Your task to perform on an android device: turn off notifications settings in the gmail app Image 0: 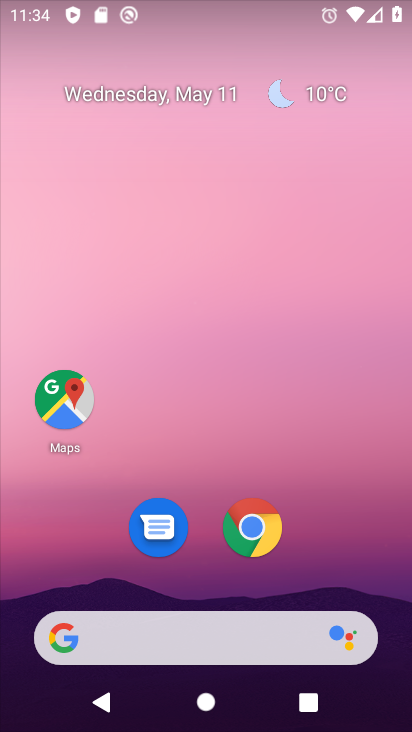
Step 0: drag from (206, 573) to (238, 124)
Your task to perform on an android device: turn off notifications settings in the gmail app Image 1: 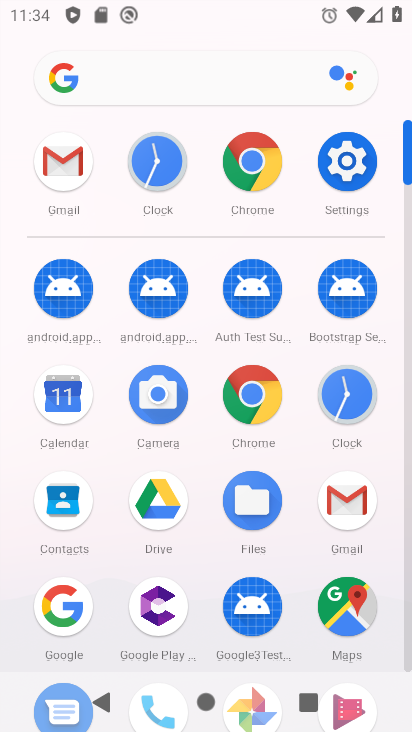
Step 1: click (357, 512)
Your task to perform on an android device: turn off notifications settings in the gmail app Image 2: 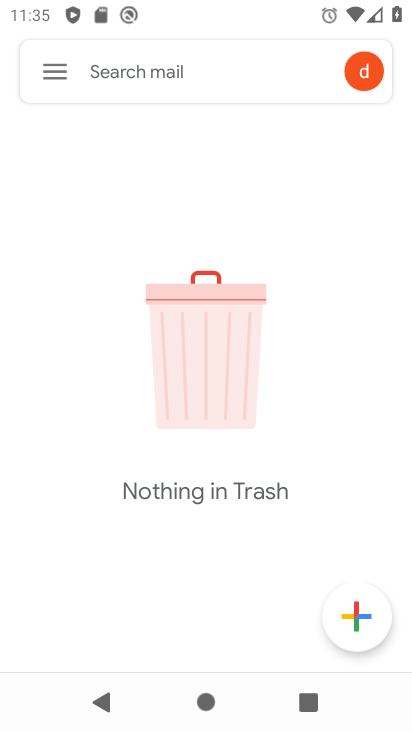
Step 2: click (62, 71)
Your task to perform on an android device: turn off notifications settings in the gmail app Image 3: 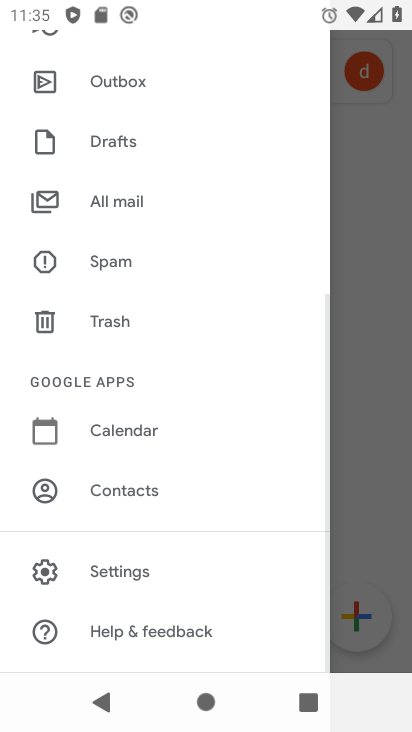
Step 3: click (125, 581)
Your task to perform on an android device: turn off notifications settings in the gmail app Image 4: 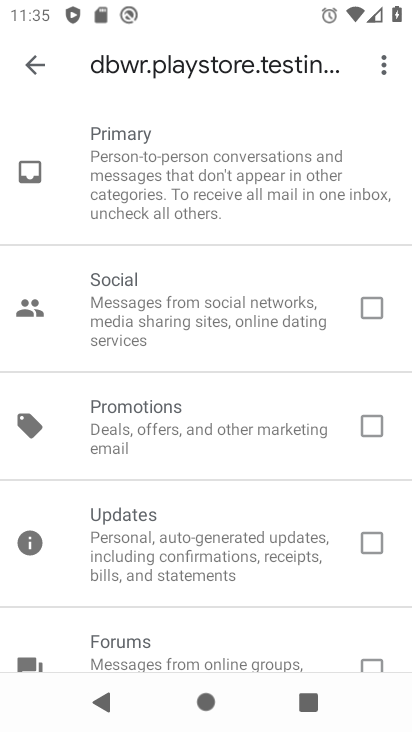
Step 4: click (26, 51)
Your task to perform on an android device: turn off notifications settings in the gmail app Image 5: 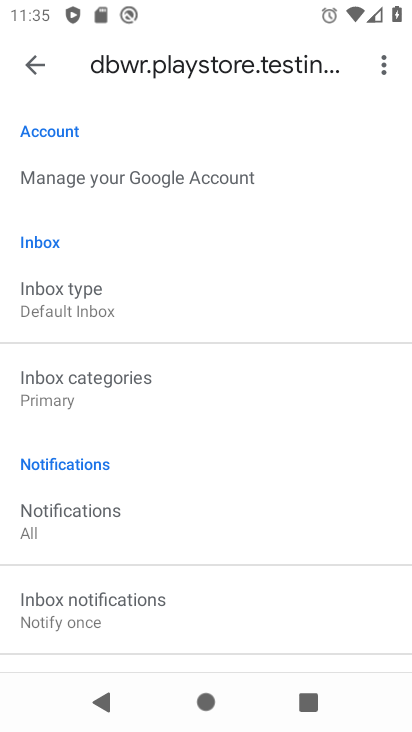
Step 5: click (40, 64)
Your task to perform on an android device: turn off notifications settings in the gmail app Image 6: 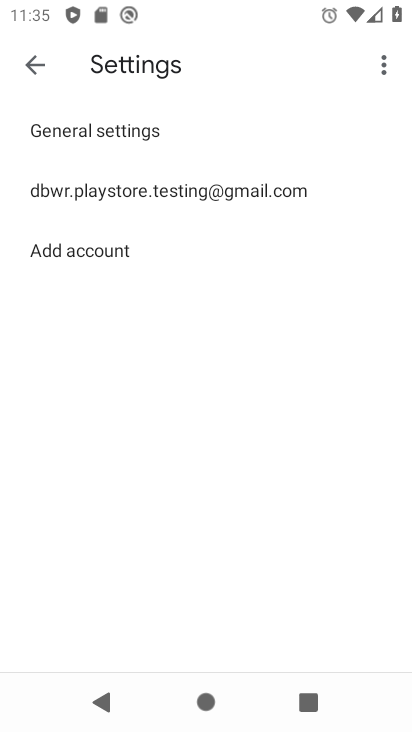
Step 6: click (126, 131)
Your task to perform on an android device: turn off notifications settings in the gmail app Image 7: 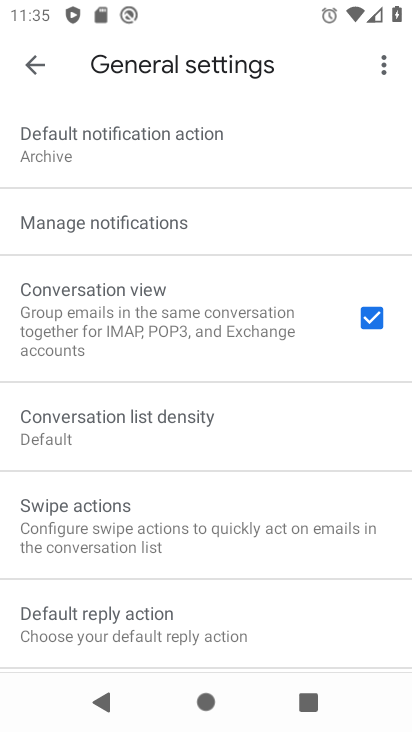
Step 7: click (95, 219)
Your task to perform on an android device: turn off notifications settings in the gmail app Image 8: 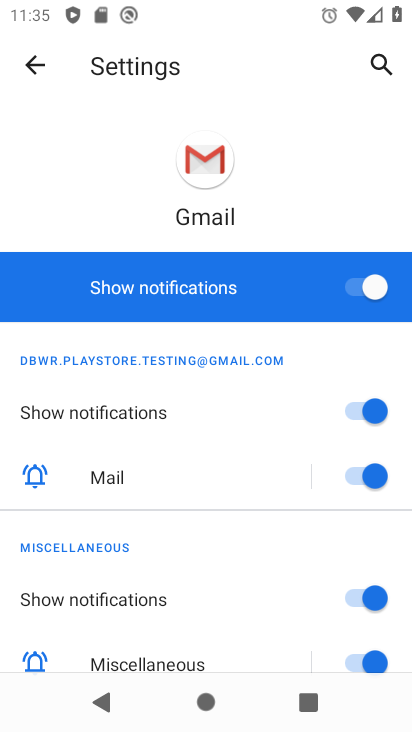
Step 8: click (352, 293)
Your task to perform on an android device: turn off notifications settings in the gmail app Image 9: 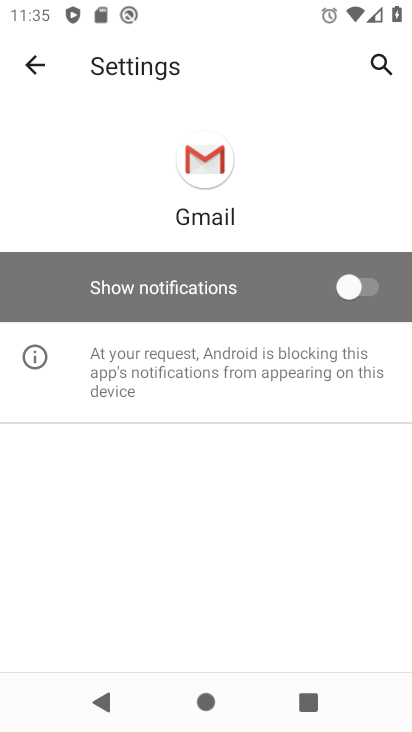
Step 9: task complete